Your task to perform on an android device: turn off airplane mode Image 0: 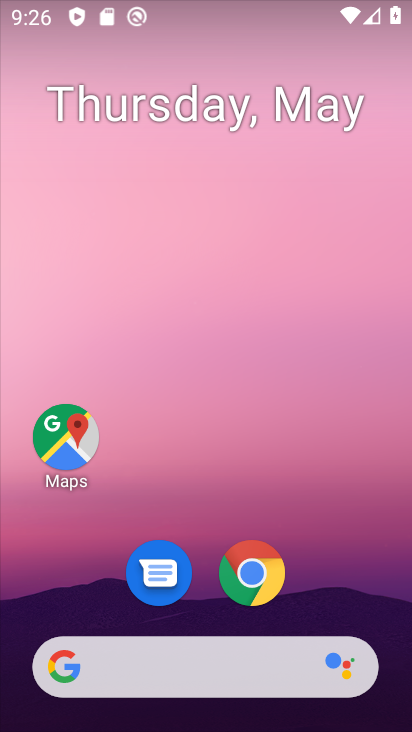
Step 0: drag from (199, 620) to (206, 14)
Your task to perform on an android device: turn off airplane mode Image 1: 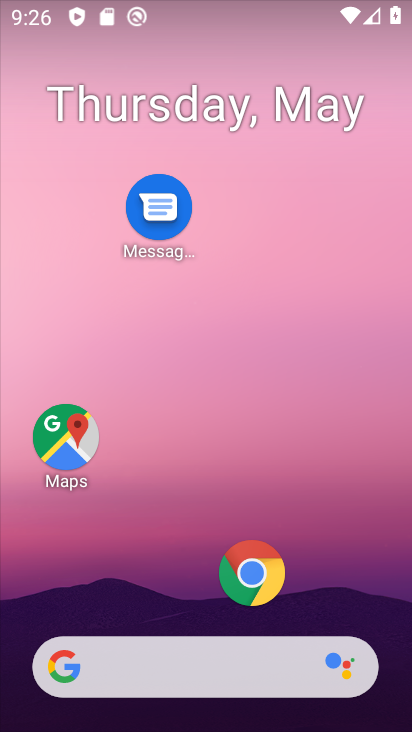
Step 1: drag from (220, 629) to (310, 7)
Your task to perform on an android device: turn off airplane mode Image 2: 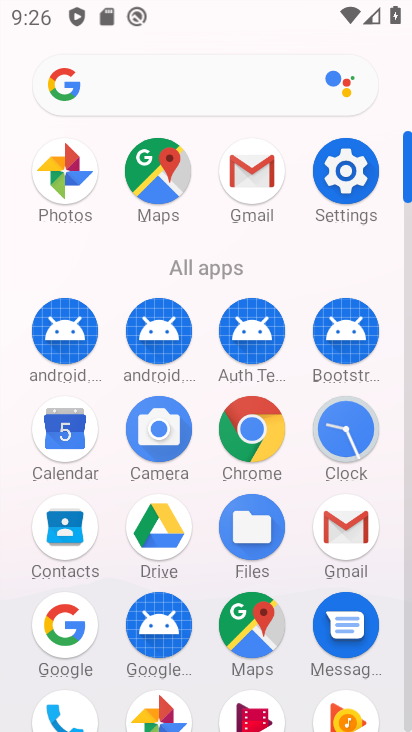
Step 2: click (334, 161)
Your task to perform on an android device: turn off airplane mode Image 3: 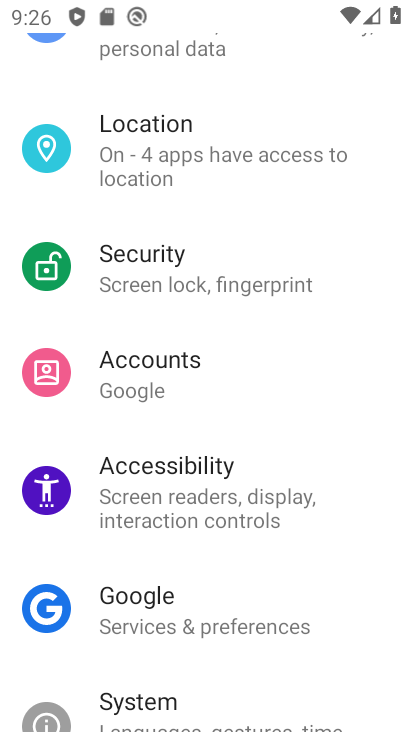
Step 3: drag from (334, 161) to (327, 703)
Your task to perform on an android device: turn off airplane mode Image 4: 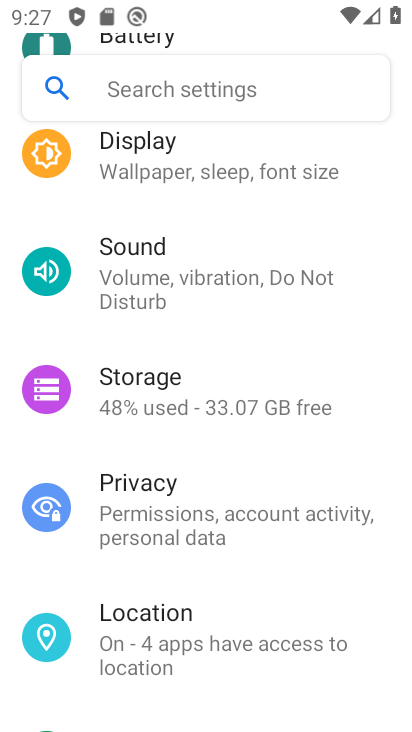
Step 4: drag from (355, 173) to (342, 694)
Your task to perform on an android device: turn off airplane mode Image 5: 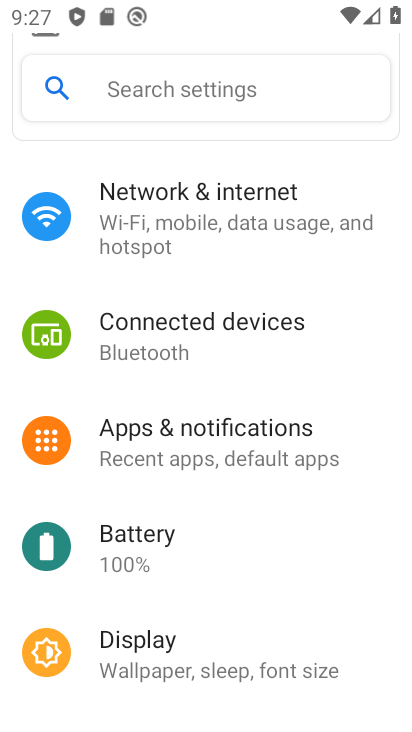
Step 5: click (208, 264)
Your task to perform on an android device: turn off airplane mode Image 6: 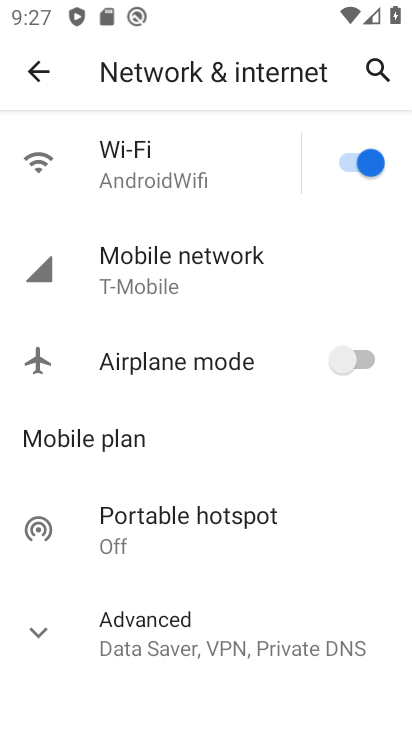
Step 6: task complete